Your task to perform on an android device: Show the shopping cart on walmart.com. Add rayovac triple a to the cart on walmart.com, then select checkout. Image 0: 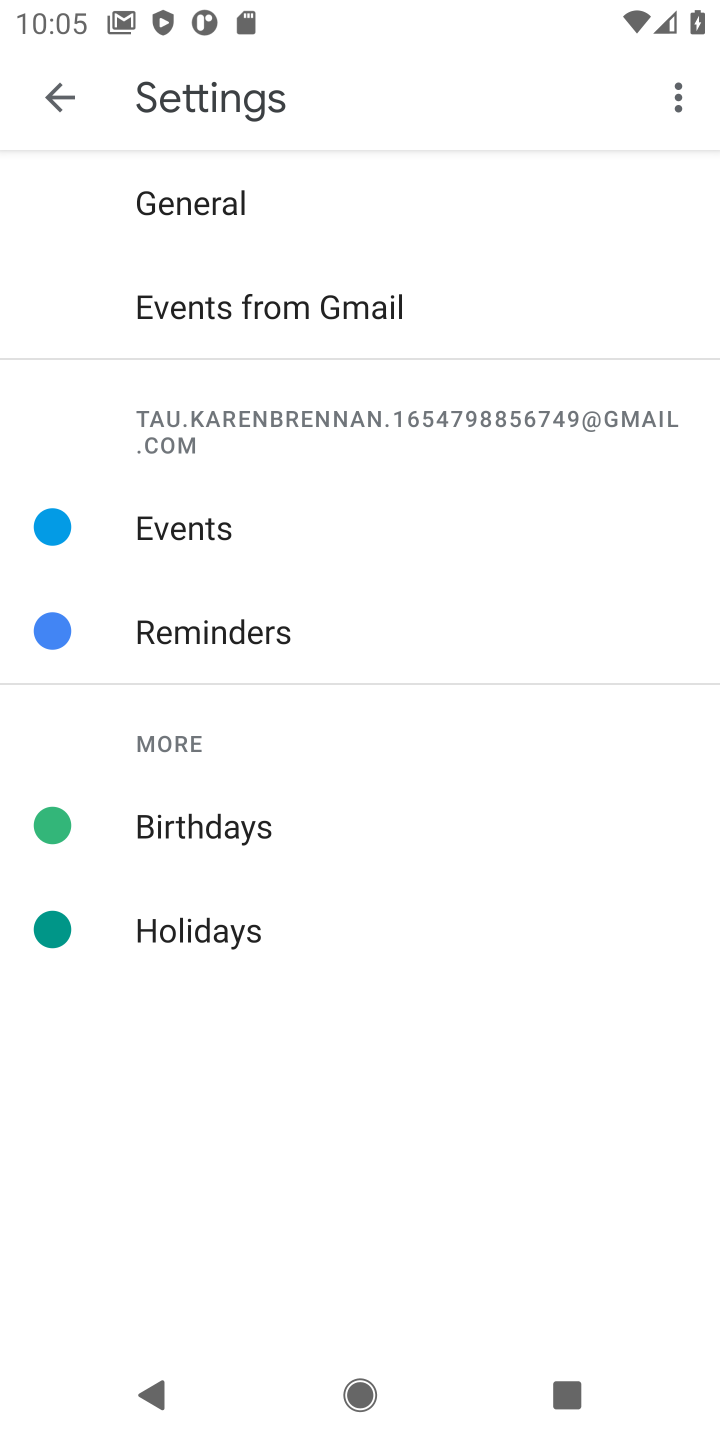
Step 0: press home button
Your task to perform on an android device: Show the shopping cart on walmart.com. Add rayovac triple a to the cart on walmart.com, then select checkout. Image 1: 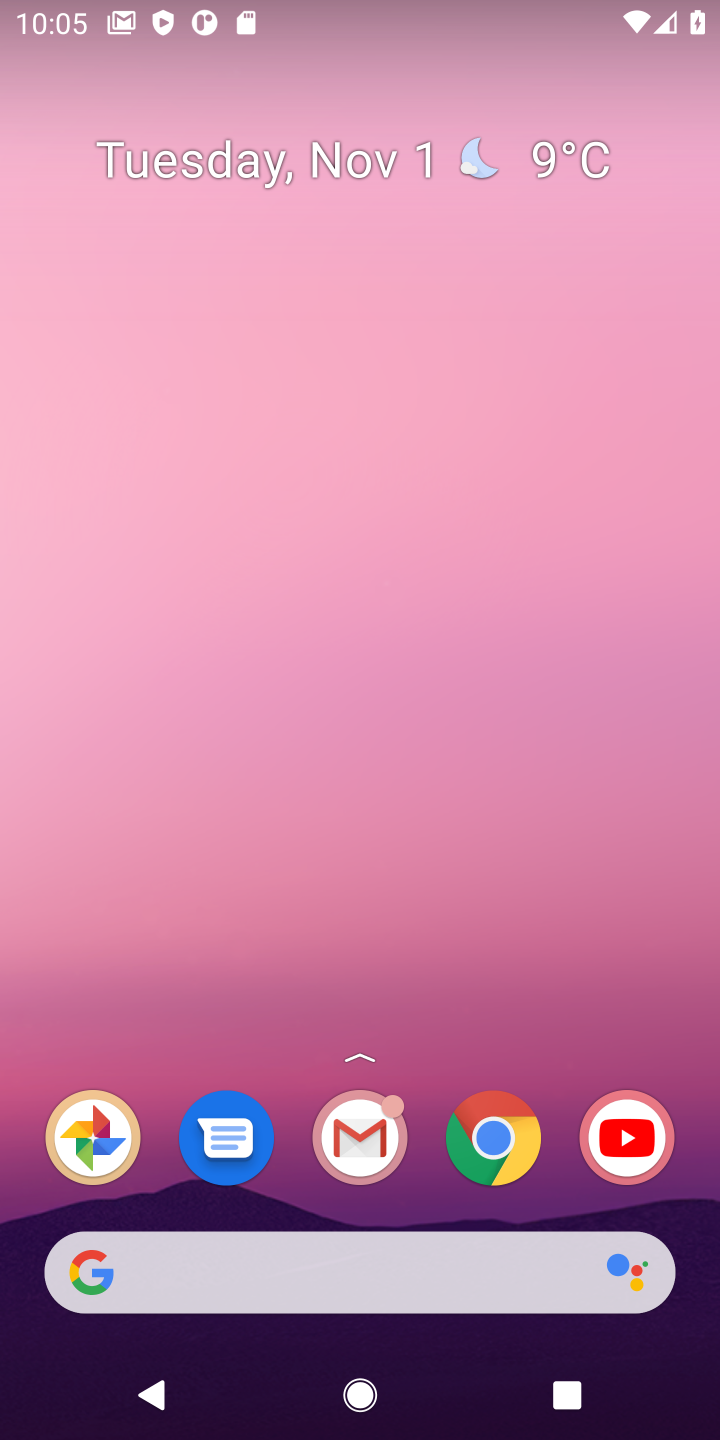
Step 1: click (489, 1116)
Your task to perform on an android device: Show the shopping cart on walmart.com. Add rayovac triple a to the cart on walmart.com, then select checkout. Image 2: 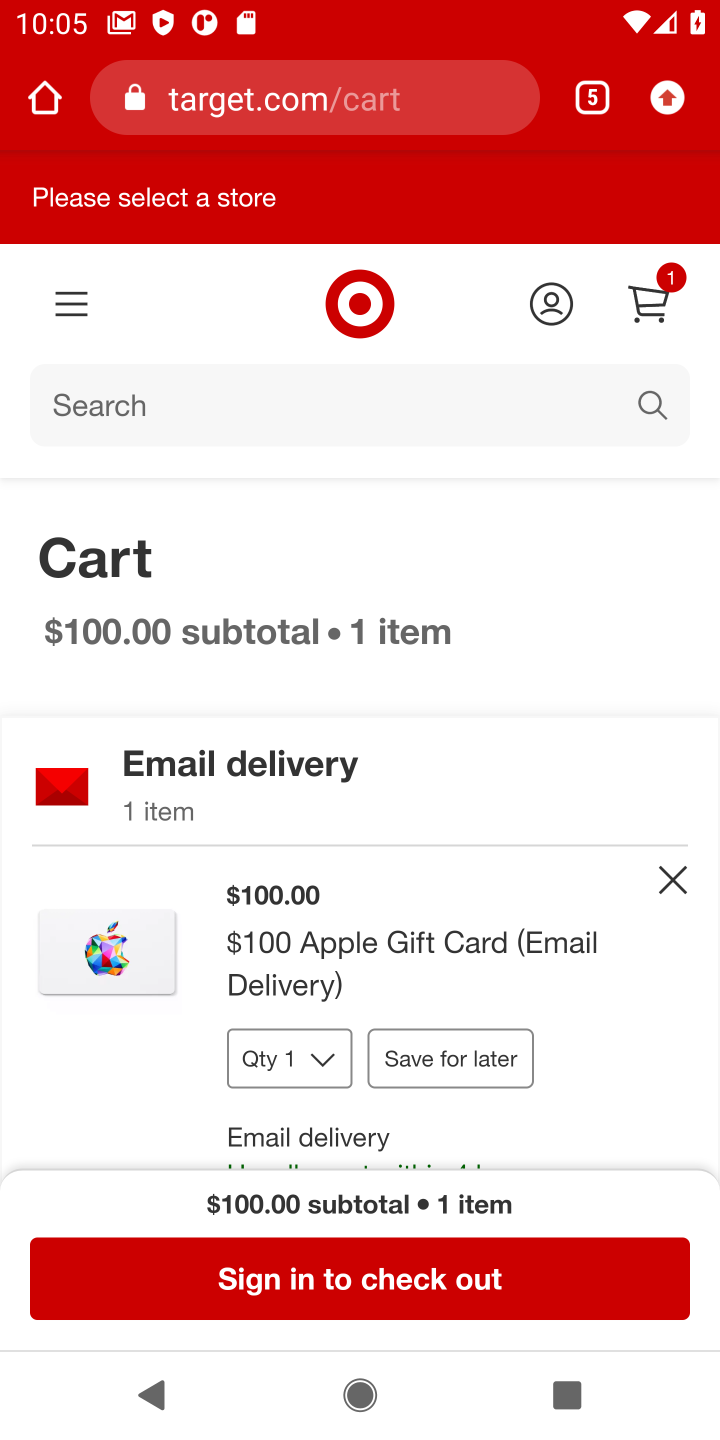
Step 2: click (596, 91)
Your task to perform on an android device: Show the shopping cart on walmart.com. Add rayovac triple a to the cart on walmart.com, then select checkout. Image 3: 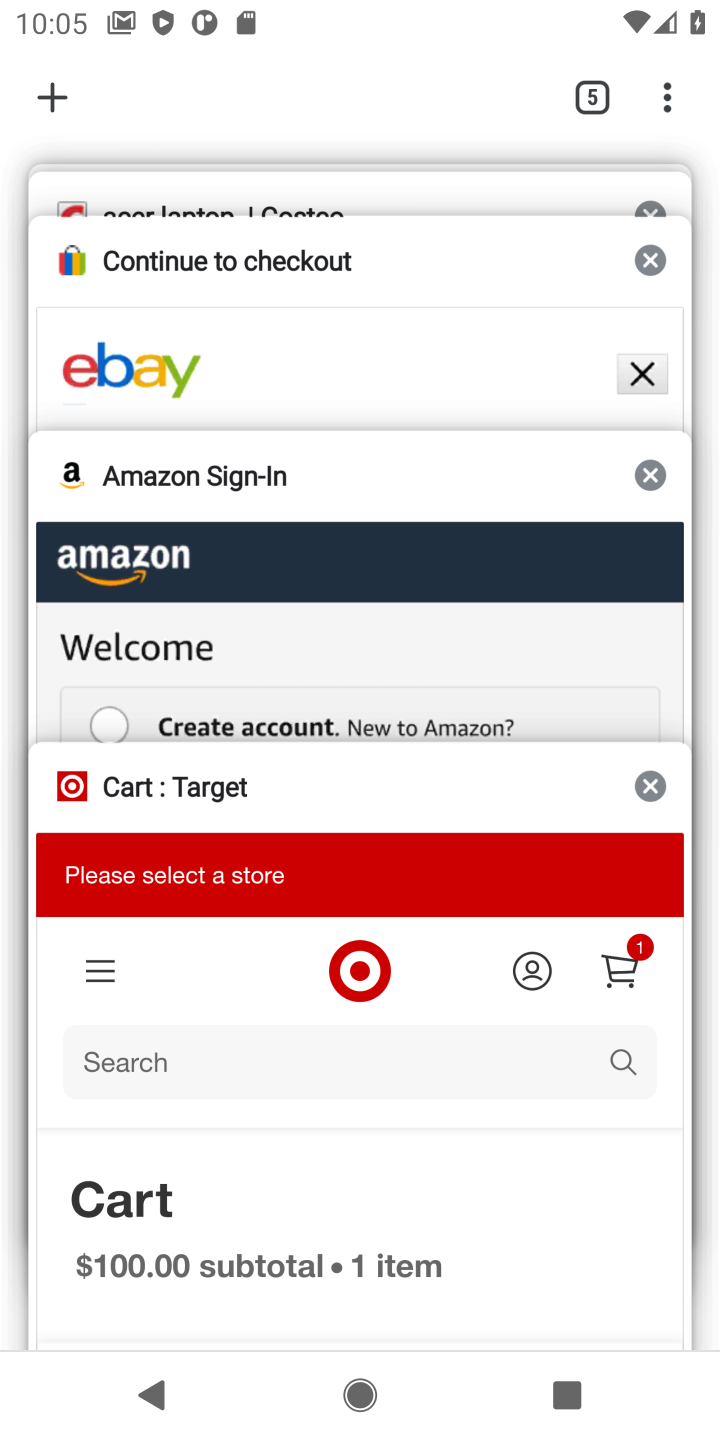
Step 3: click (51, 101)
Your task to perform on an android device: Show the shopping cart on walmart.com. Add rayovac triple a to the cart on walmart.com, then select checkout. Image 4: 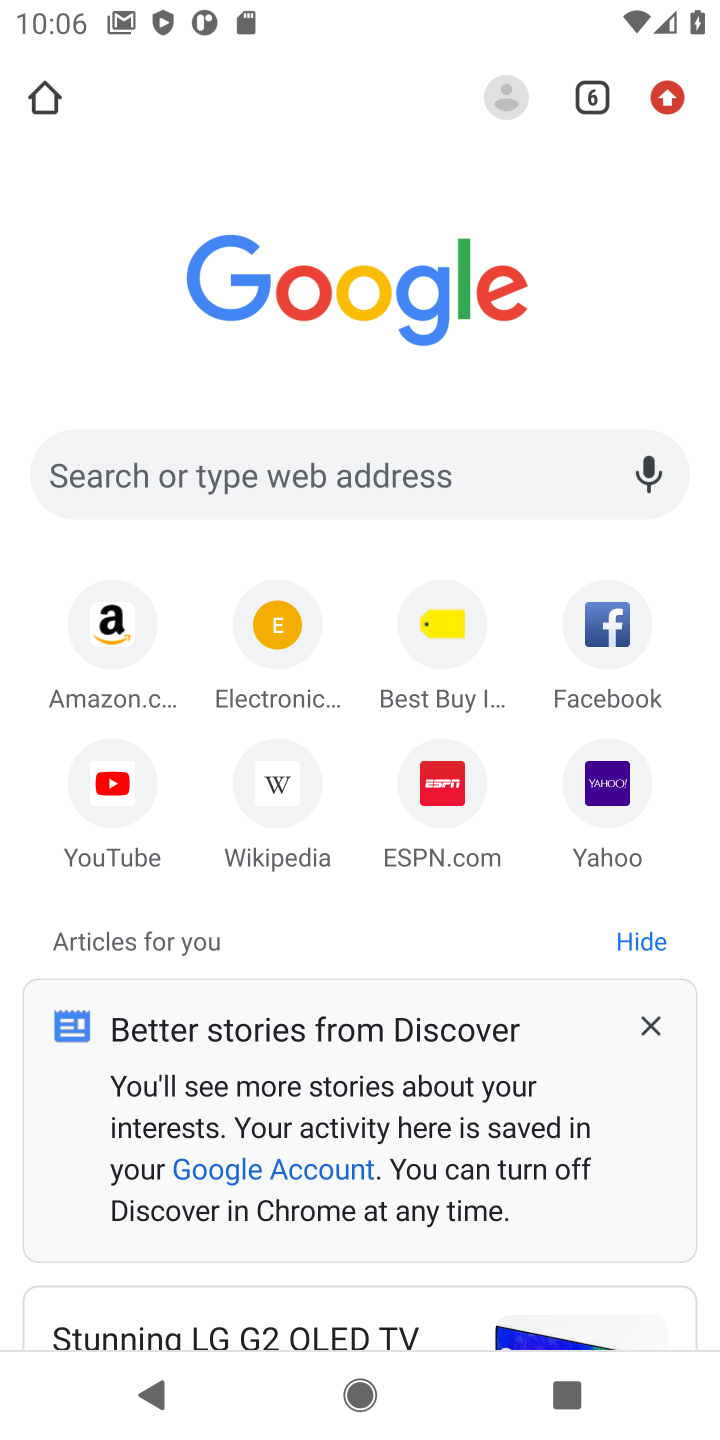
Step 4: click (346, 449)
Your task to perform on an android device: Show the shopping cart on walmart.com. Add rayovac triple a to the cart on walmart.com, then select checkout. Image 5: 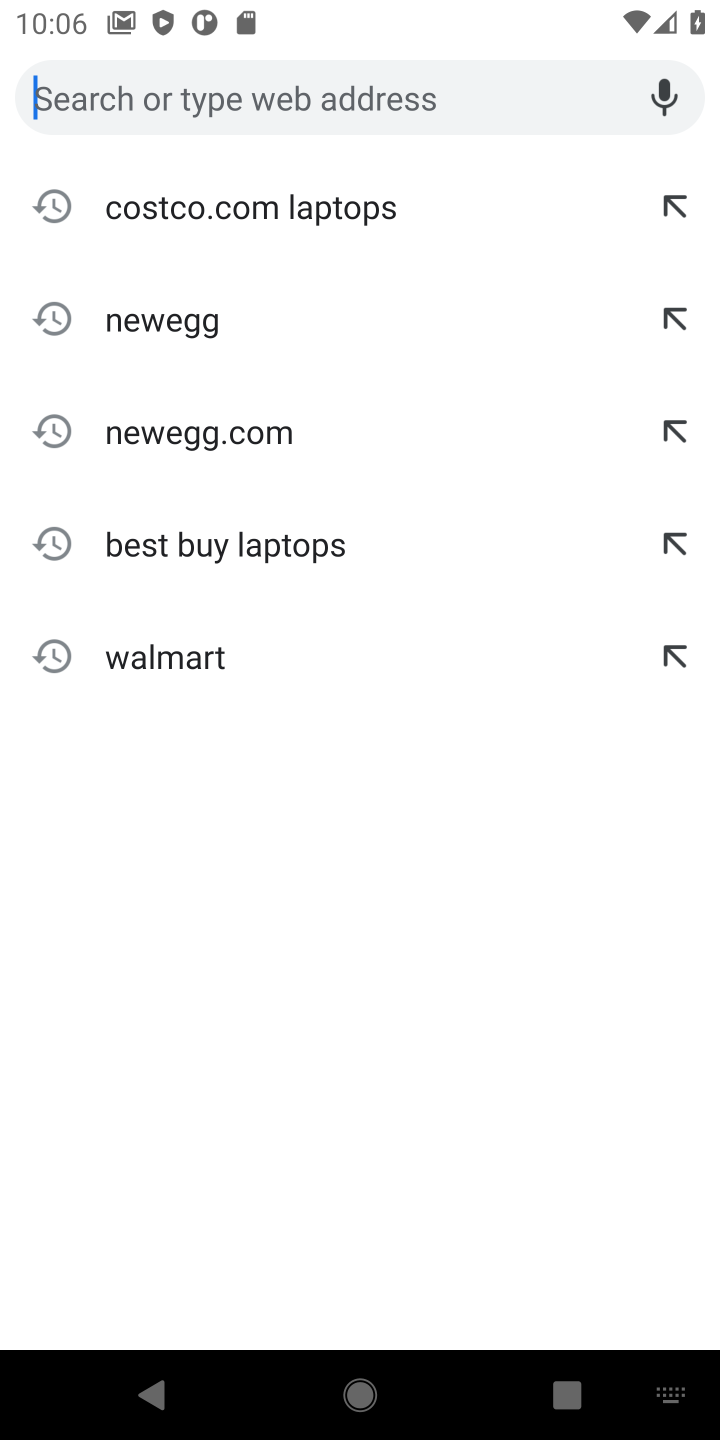
Step 5: click (193, 648)
Your task to perform on an android device: Show the shopping cart on walmart.com. Add rayovac triple a to the cart on walmart.com, then select checkout. Image 6: 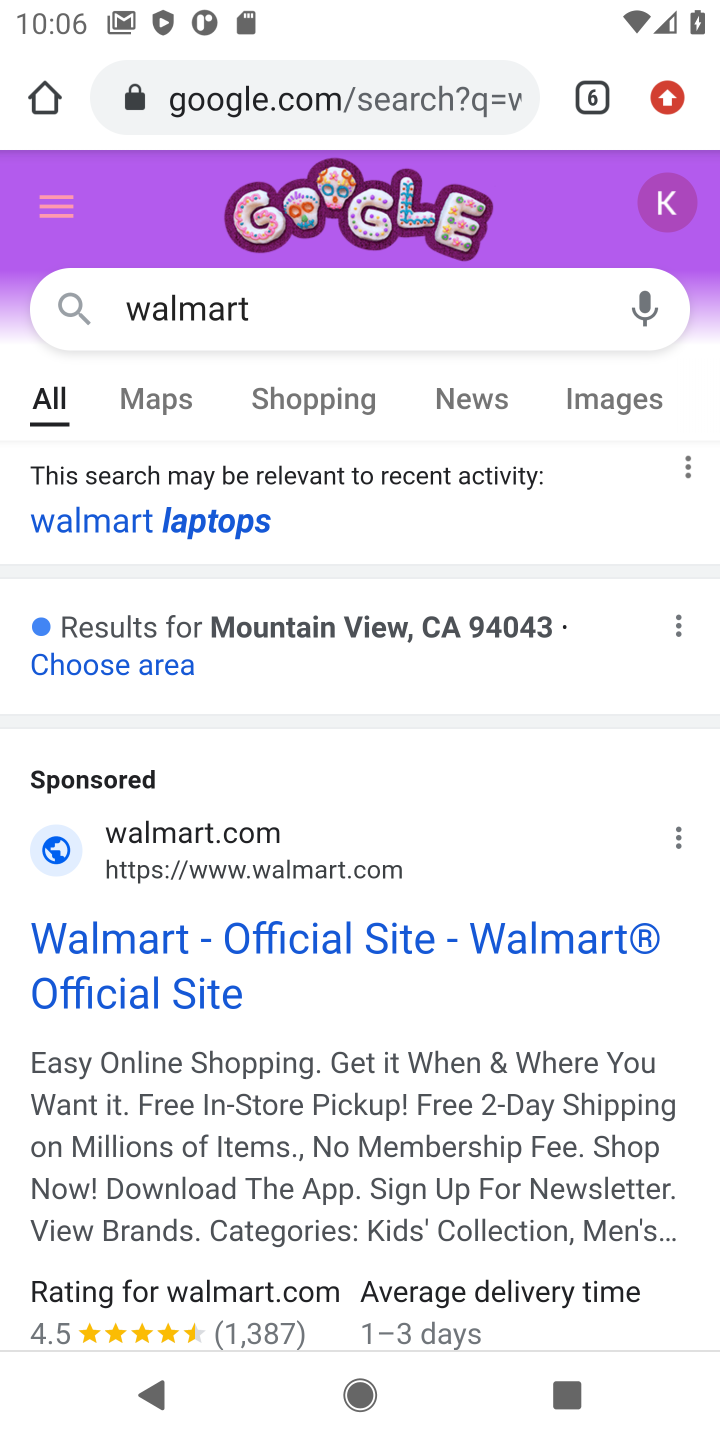
Step 6: drag from (296, 1072) to (384, 421)
Your task to perform on an android device: Show the shopping cart on walmart.com. Add rayovac triple a to the cart on walmart.com, then select checkout. Image 7: 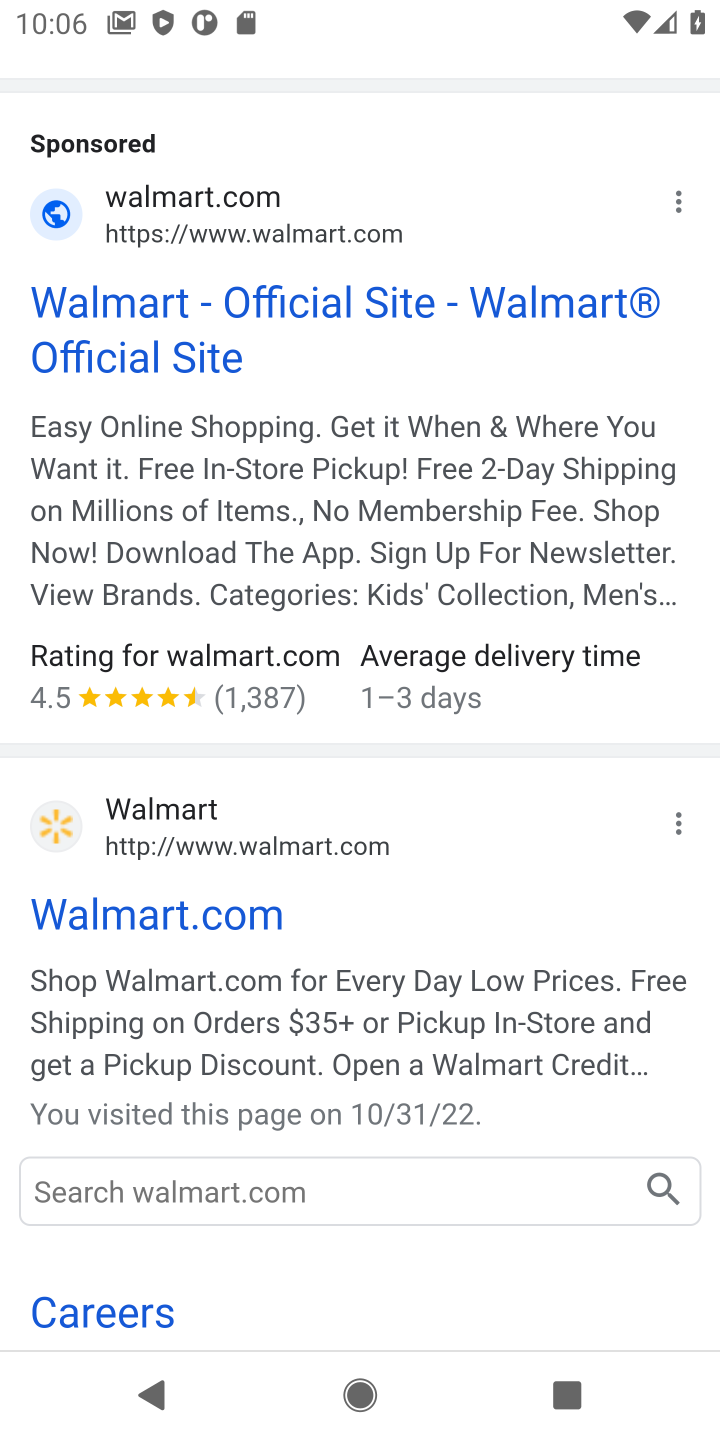
Step 7: click (161, 911)
Your task to perform on an android device: Show the shopping cart on walmart.com. Add rayovac triple a to the cart on walmart.com, then select checkout. Image 8: 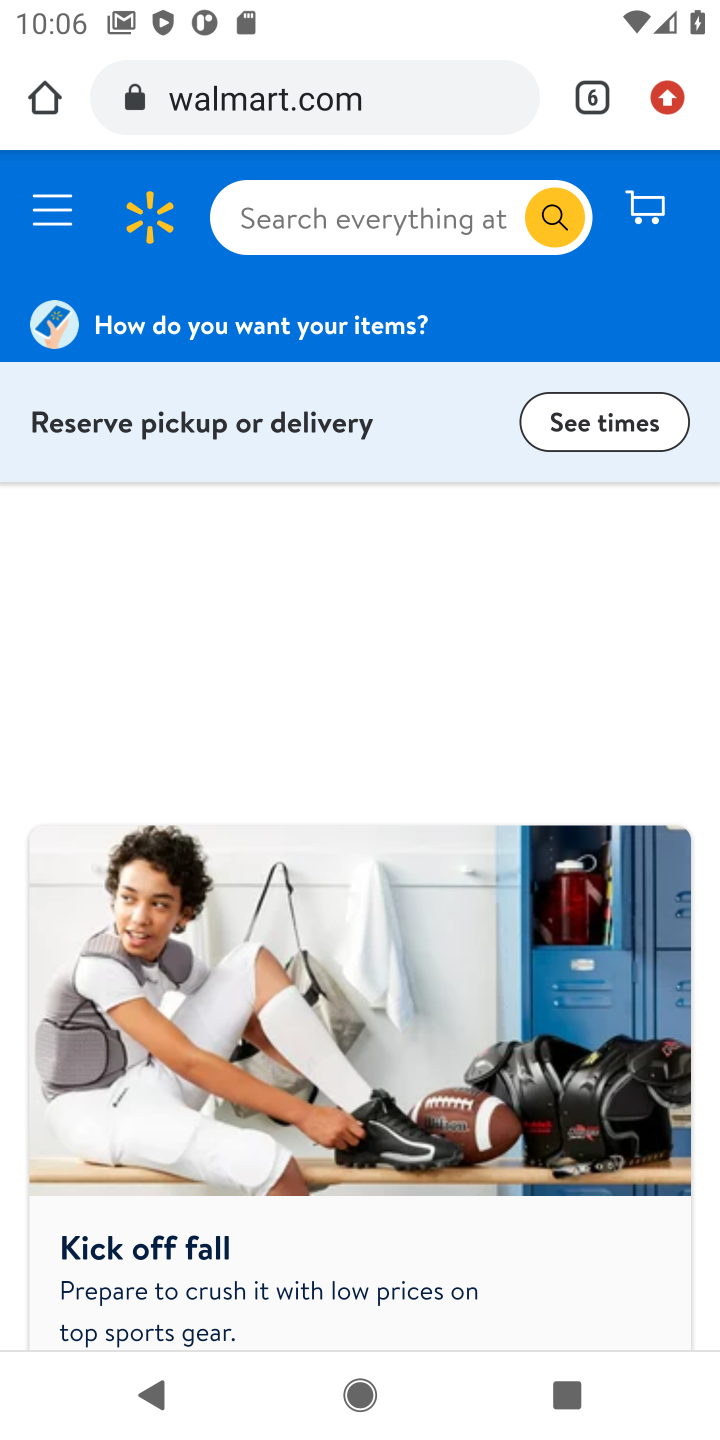
Step 8: click (386, 216)
Your task to perform on an android device: Show the shopping cart on walmart.com. Add rayovac triple a to the cart on walmart.com, then select checkout. Image 9: 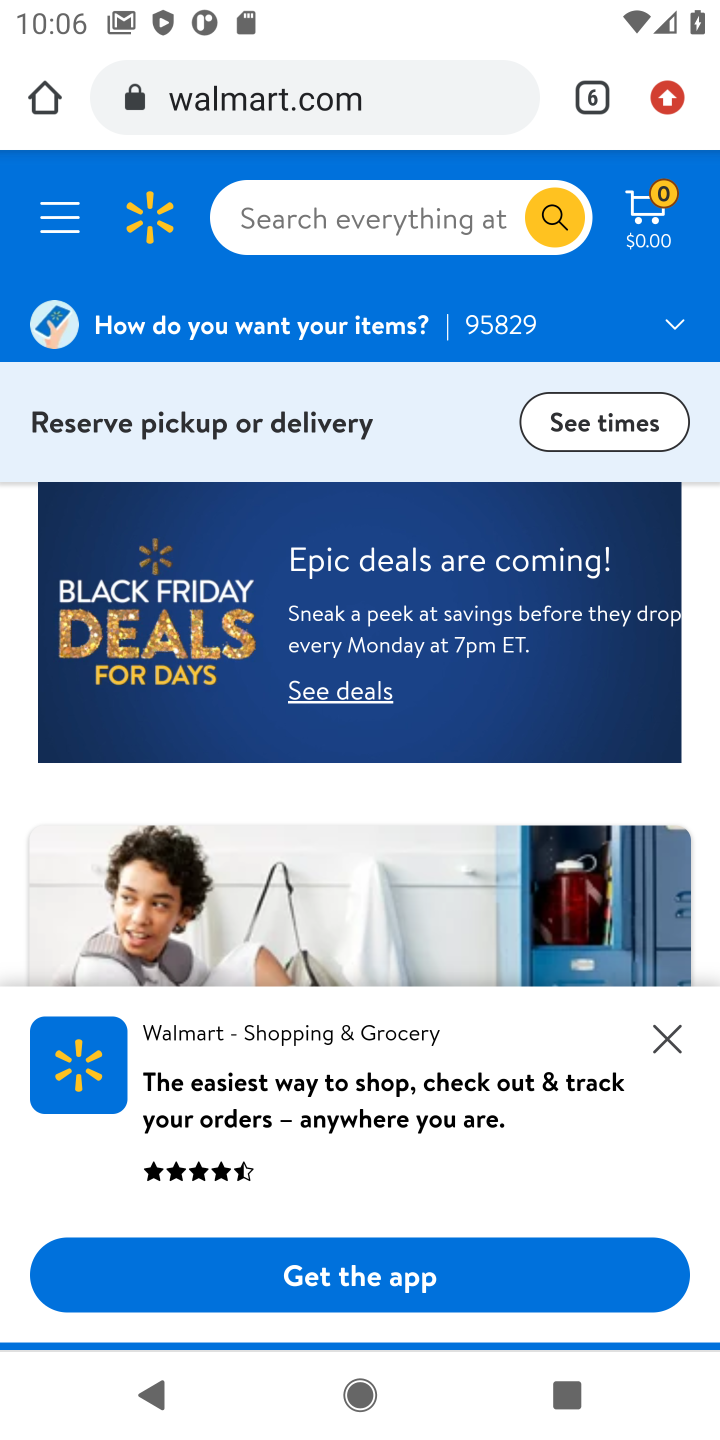
Step 9: type "rayovac triple a battery"
Your task to perform on an android device: Show the shopping cart on walmart.com. Add rayovac triple a to the cart on walmart.com, then select checkout. Image 10: 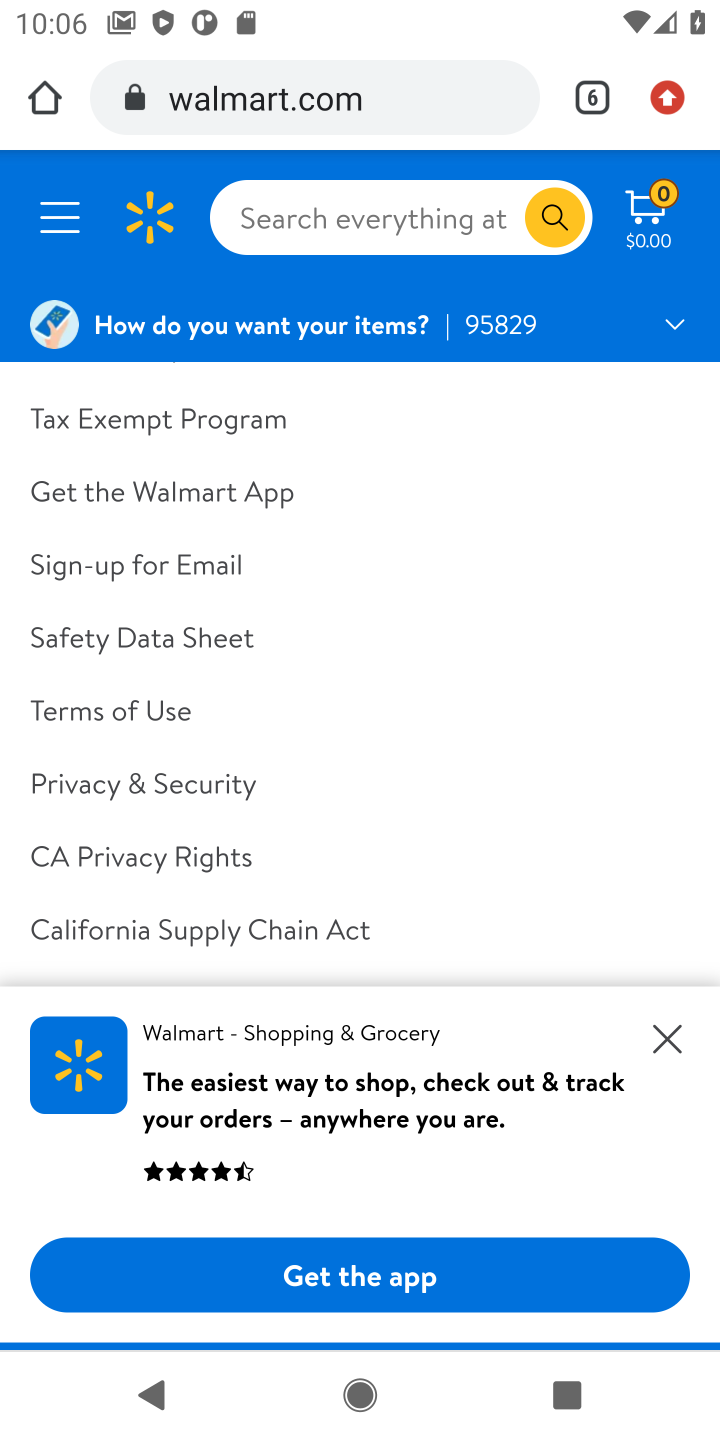
Step 10: click (668, 1030)
Your task to perform on an android device: Show the shopping cart on walmart.com. Add rayovac triple a to the cart on walmart.com, then select checkout. Image 11: 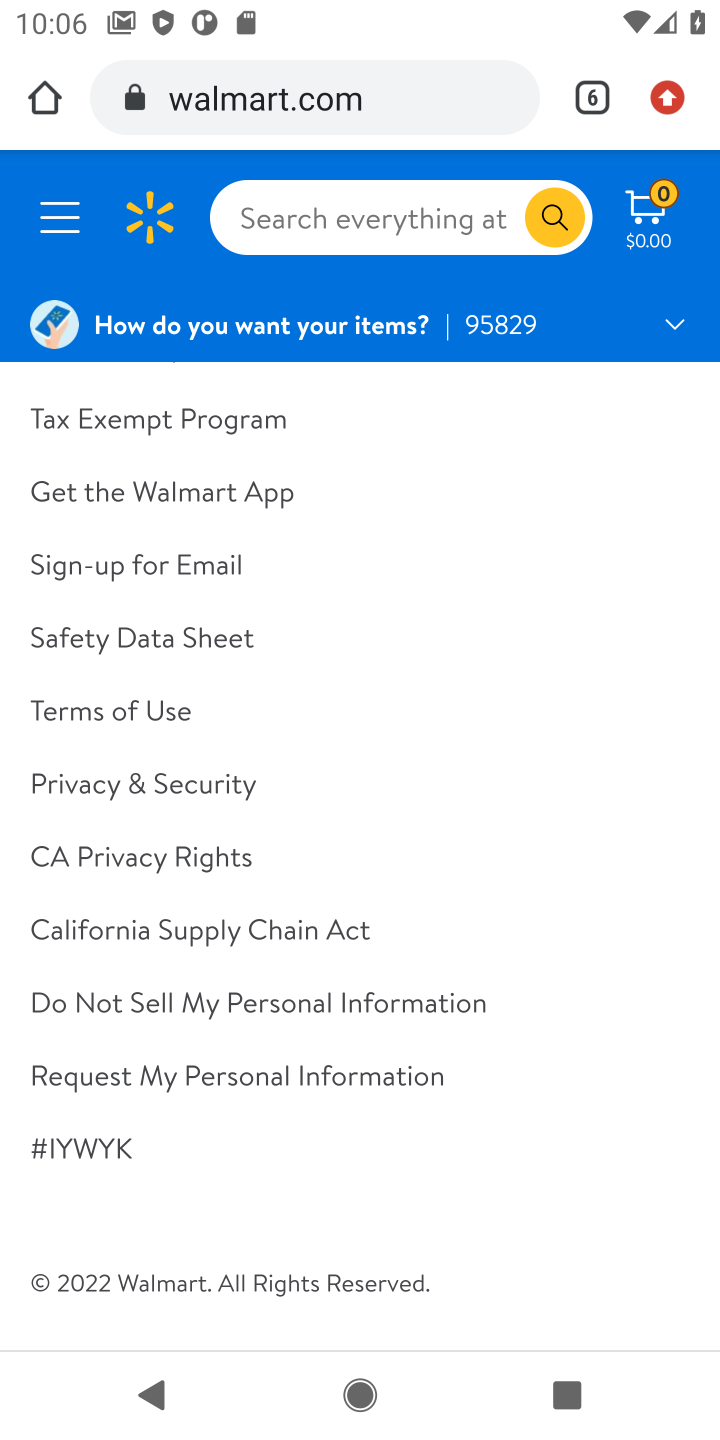
Step 11: click (314, 210)
Your task to perform on an android device: Show the shopping cart on walmart.com. Add rayovac triple a to the cart on walmart.com, then select checkout. Image 12: 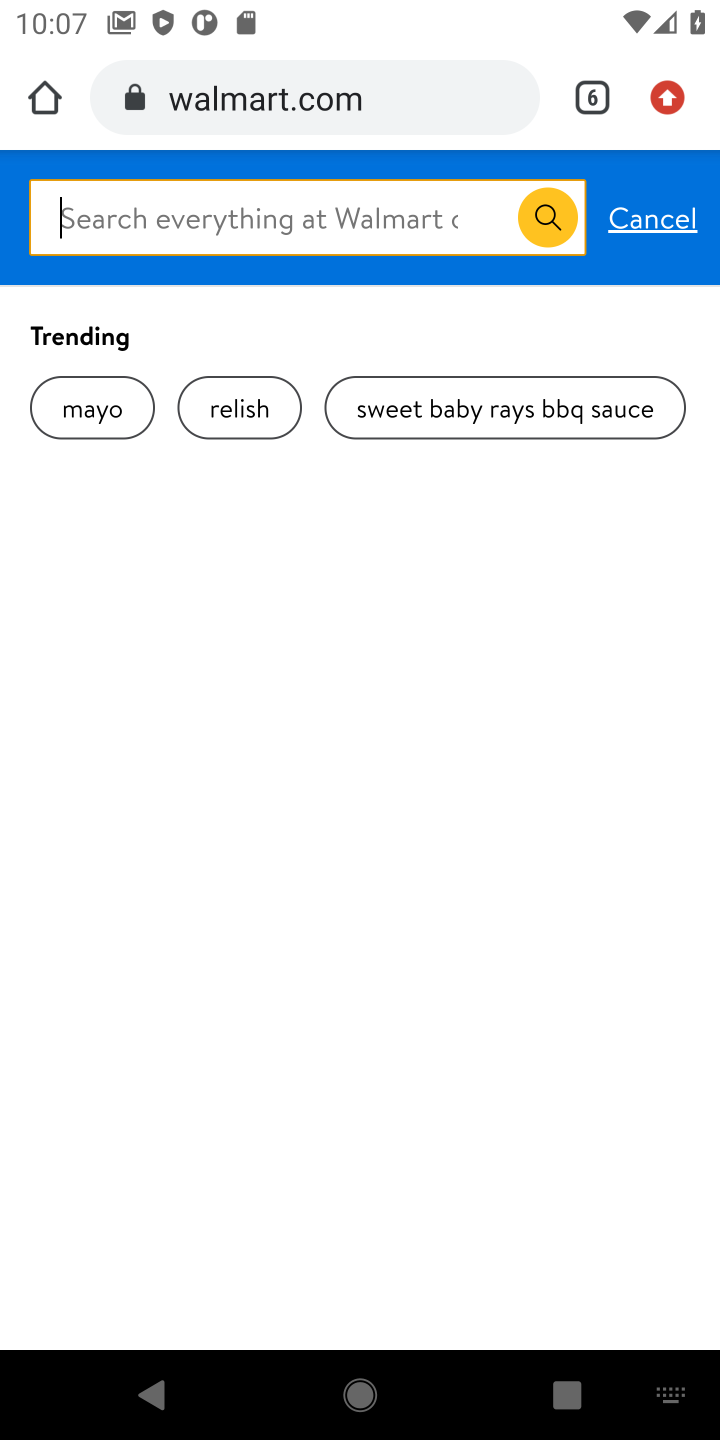
Step 12: type "rayovac triple a battery"
Your task to perform on an android device: Show the shopping cart on walmart.com. Add rayovac triple a to the cart on walmart.com, then select checkout. Image 13: 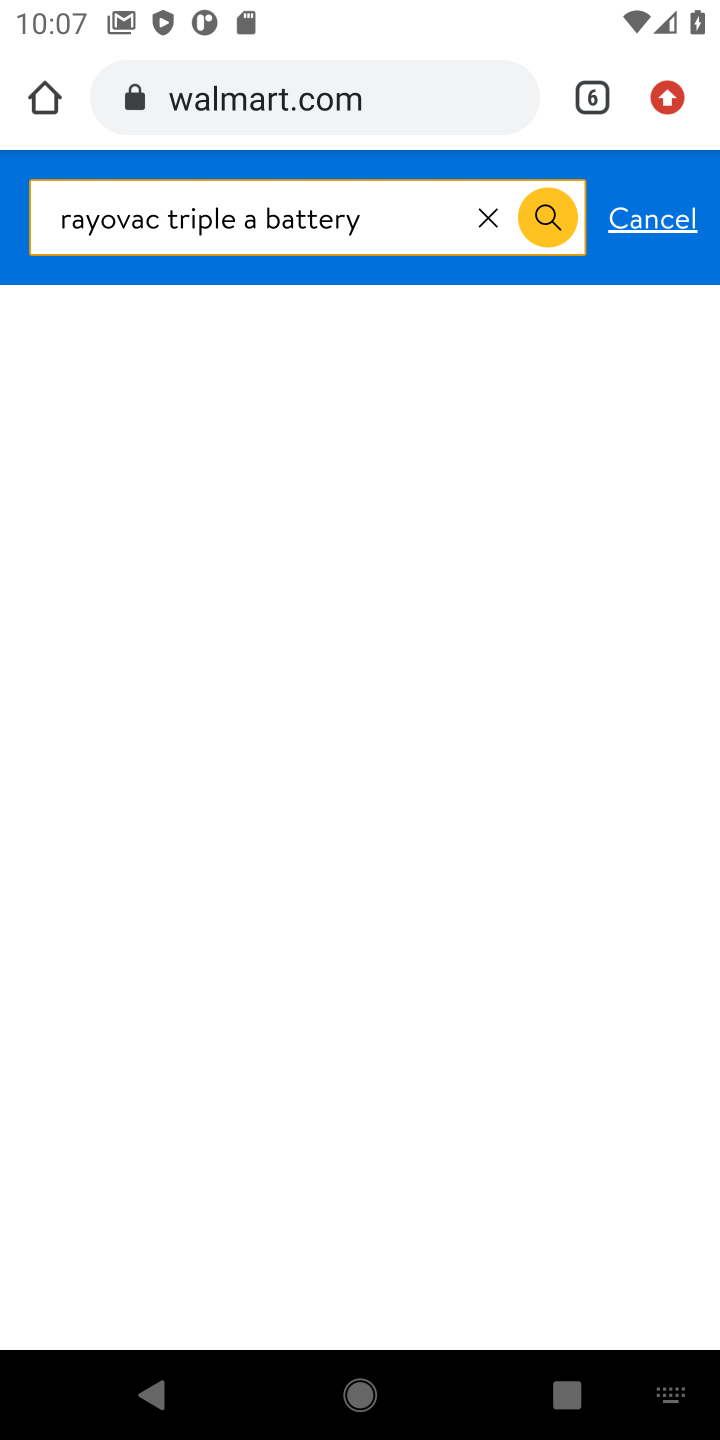
Step 13: click (546, 216)
Your task to perform on an android device: Show the shopping cart on walmart.com. Add rayovac triple a to the cart on walmart.com, then select checkout. Image 14: 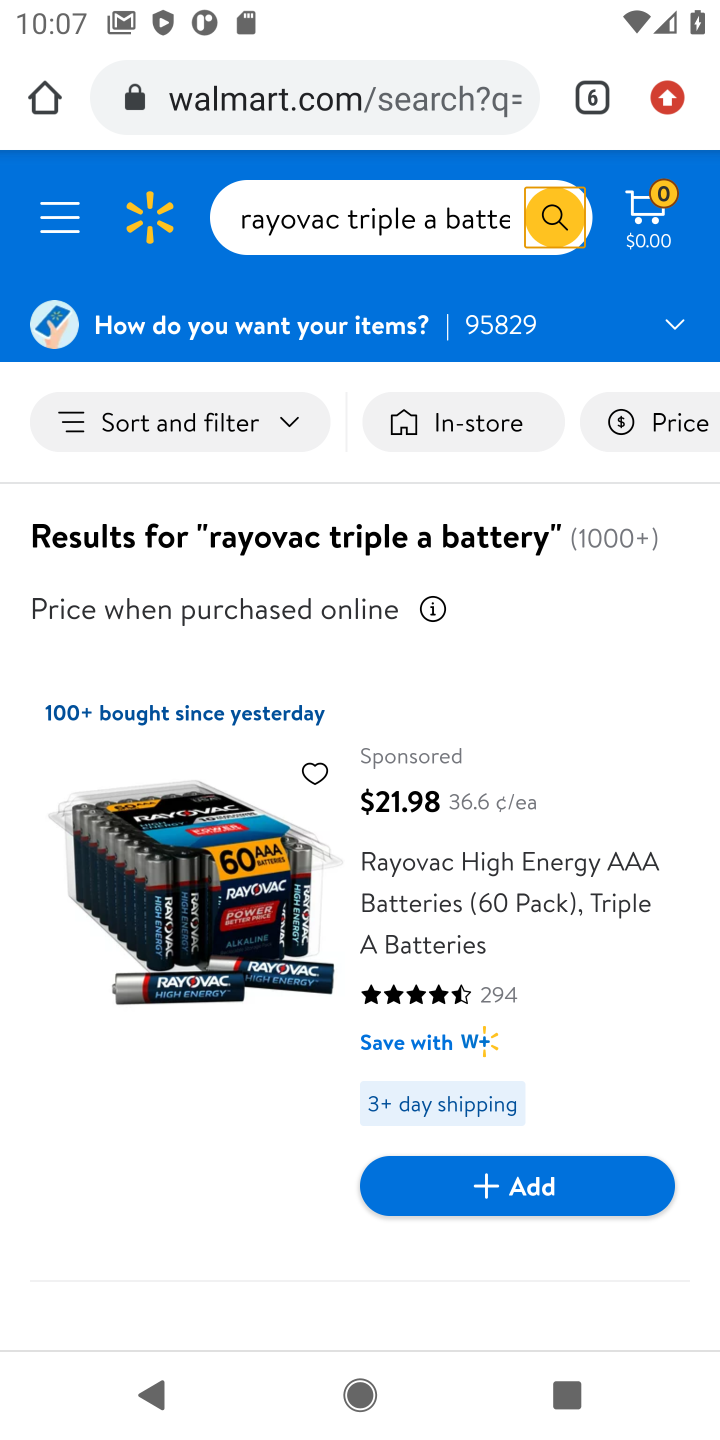
Step 14: click (551, 1180)
Your task to perform on an android device: Show the shopping cart on walmart.com. Add rayovac triple a to the cart on walmart.com, then select checkout. Image 15: 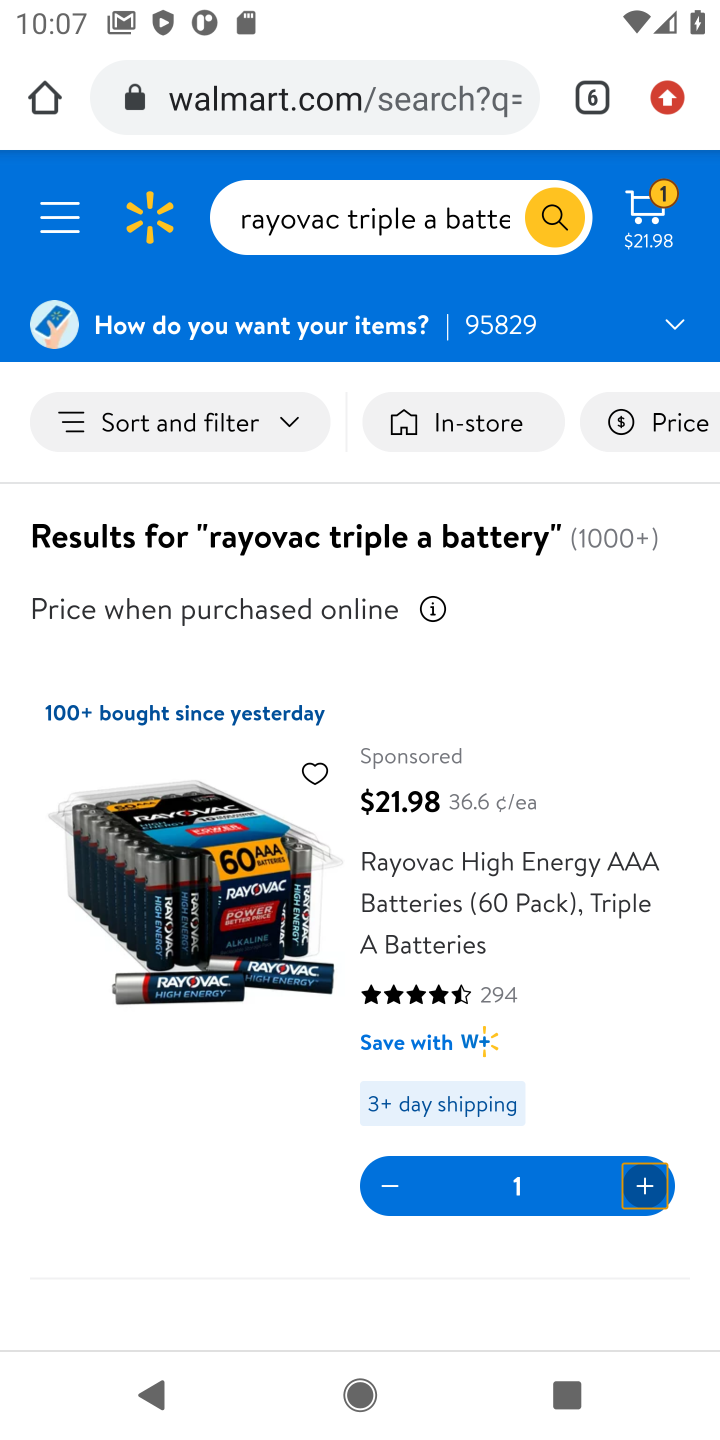
Step 15: task complete